Your task to perform on an android device: See recent photos Image 0: 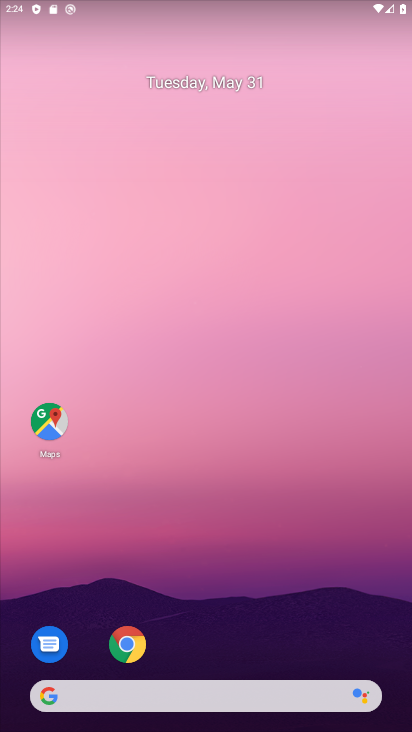
Step 0: drag from (315, 619) to (289, 59)
Your task to perform on an android device: See recent photos Image 1: 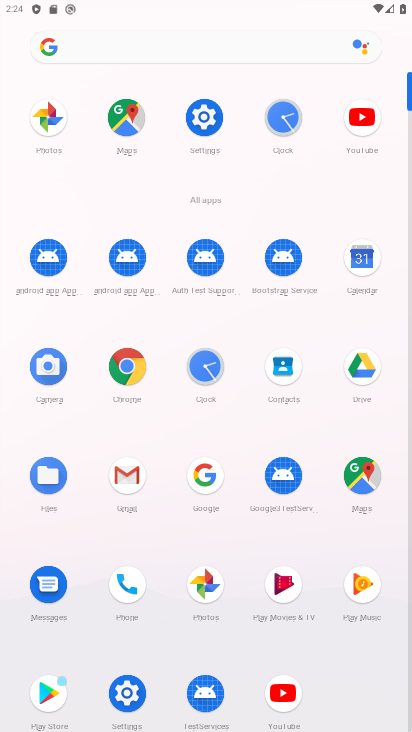
Step 1: click (51, 119)
Your task to perform on an android device: See recent photos Image 2: 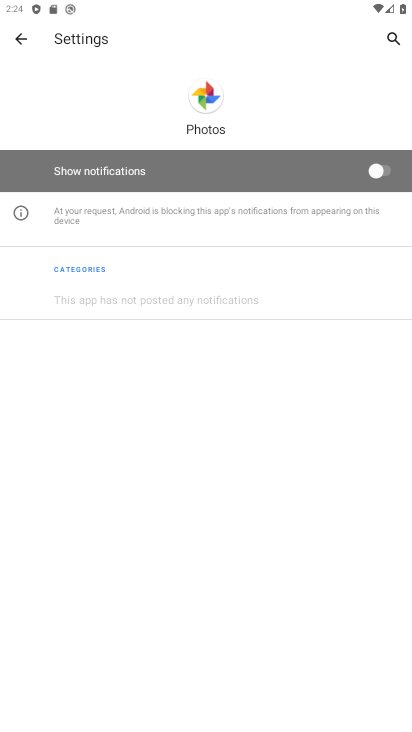
Step 2: task complete